Your task to perform on an android device: When is my next appointment? Image 0: 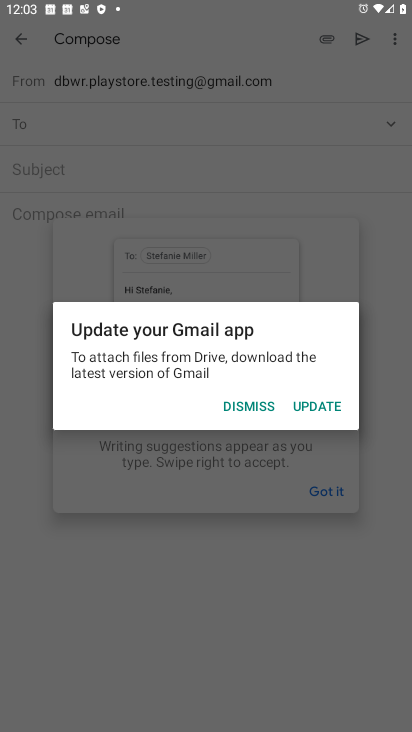
Step 0: click (252, 407)
Your task to perform on an android device: When is my next appointment? Image 1: 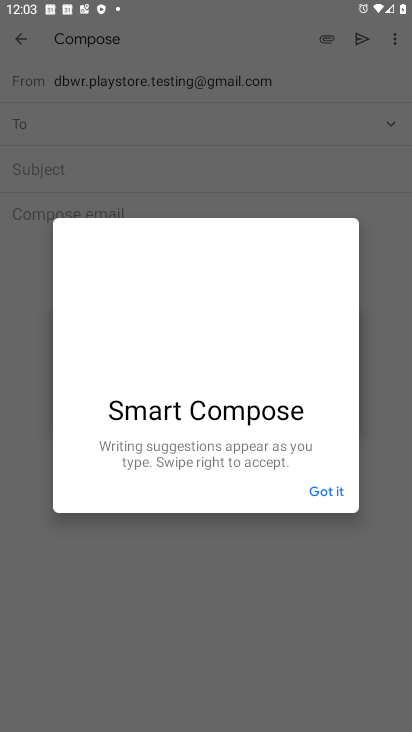
Step 1: task complete